Your task to perform on an android device: Open the calendar and show me this week's events? Image 0: 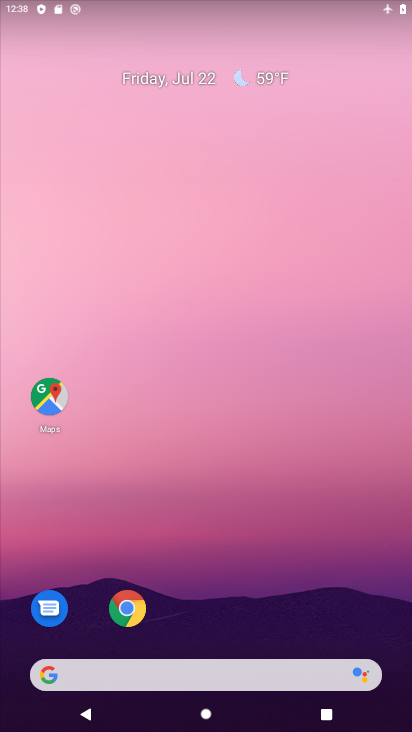
Step 0: drag from (188, 486) to (191, 156)
Your task to perform on an android device: Open the calendar and show me this week's events? Image 1: 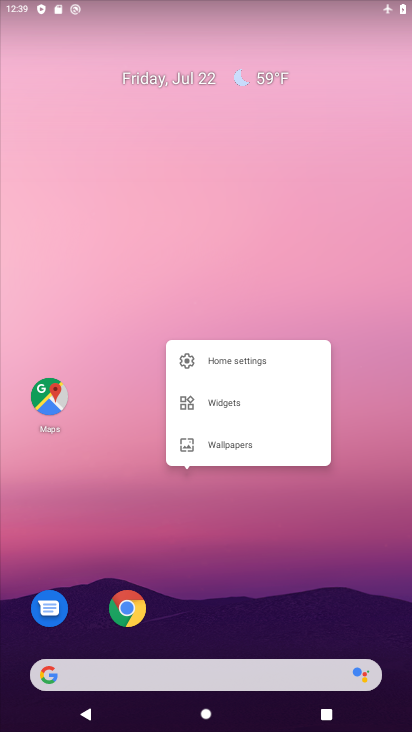
Step 1: drag from (169, 642) to (179, 175)
Your task to perform on an android device: Open the calendar and show me this week's events? Image 2: 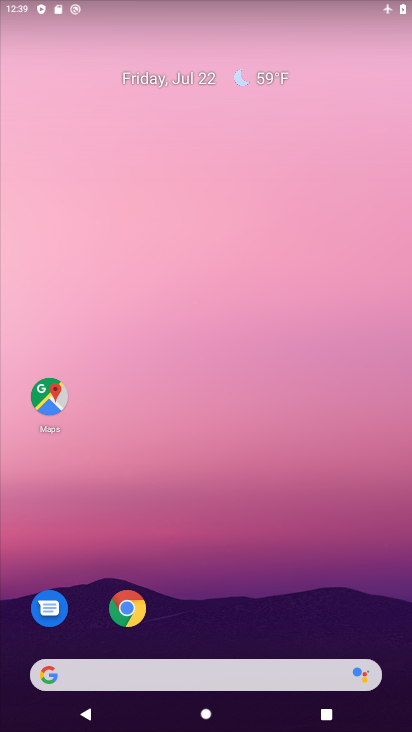
Step 2: drag from (189, 629) to (217, 36)
Your task to perform on an android device: Open the calendar and show me this week's events? Image 3: 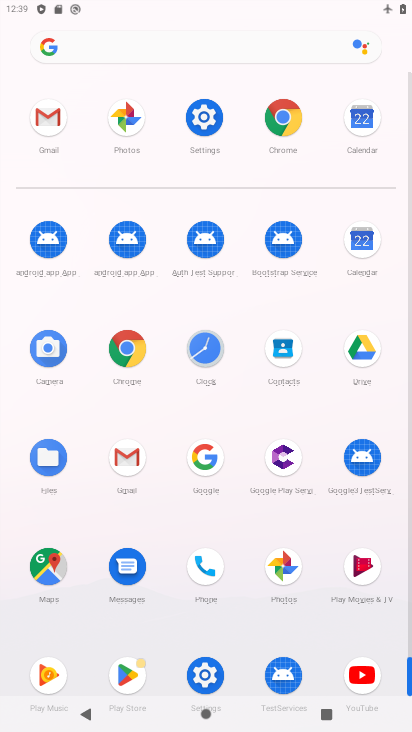
Step 3: click (365, 128)
Your task to perform on an android device: Open the calendar and show me this week's events? Image 4: 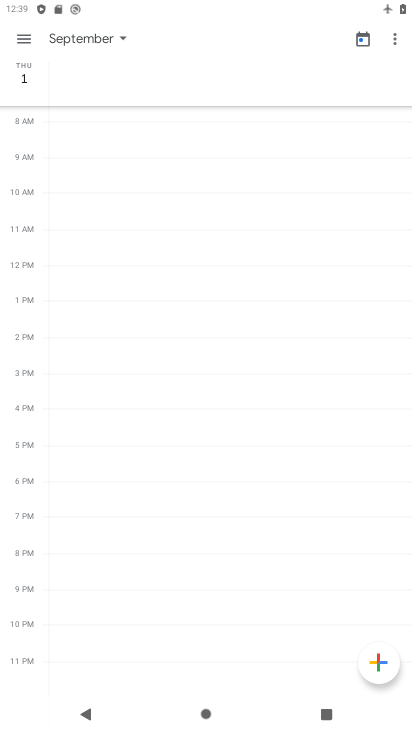
Step 4: click (80, 36)
Your task to perform on an android device: Open the calendar and show me this week's events? Image 5: 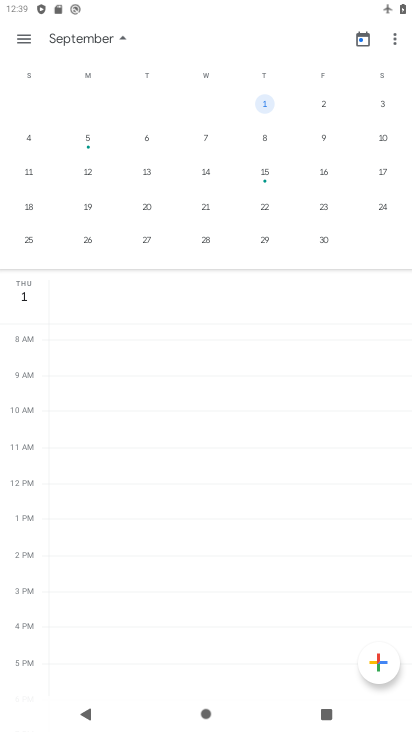
Step 5: drag from (77, 162) to (394, 219)
Your task to perform on an android device: Open the calendar and show me this week's events? Image 6: 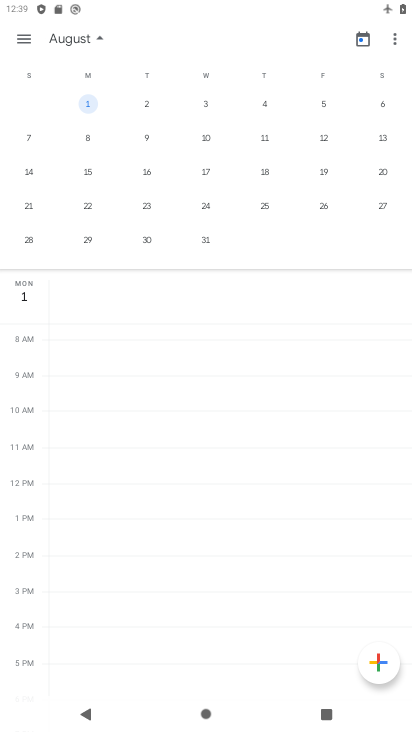
Step 6: drag from (116, 155) to (404, 191)
Your task to perform on an android device: Open the calendar and show me this week's events? Image 7: 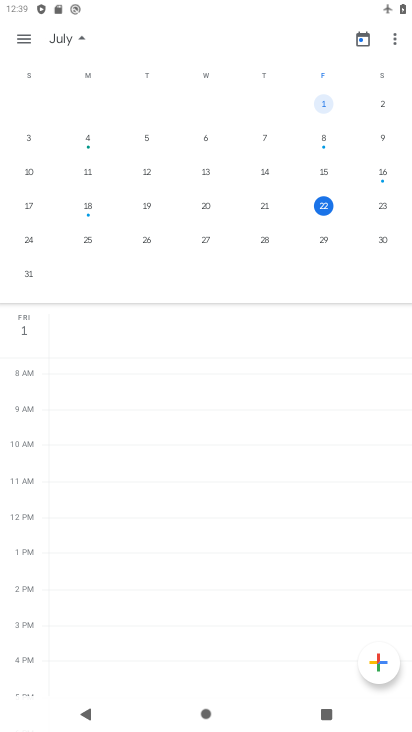
Step 7: click (328, 209)
Your task to perform on an android device: Open the calendar and show me this week's events? Image 8: 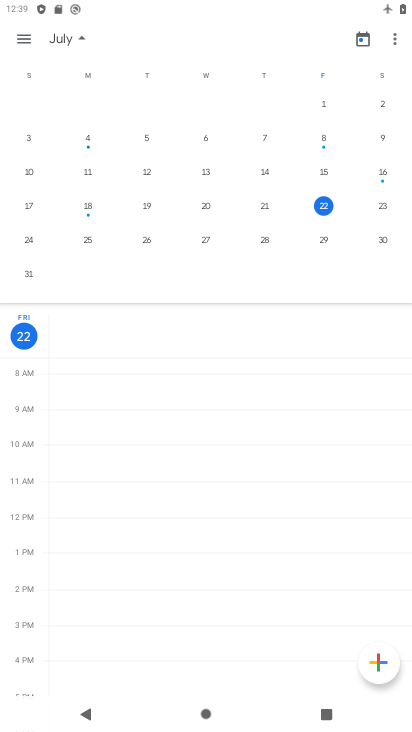
Step 8: click (12, 33)
Your task to perform on an android device: Open the calendar and show me this week's events? Image 9: 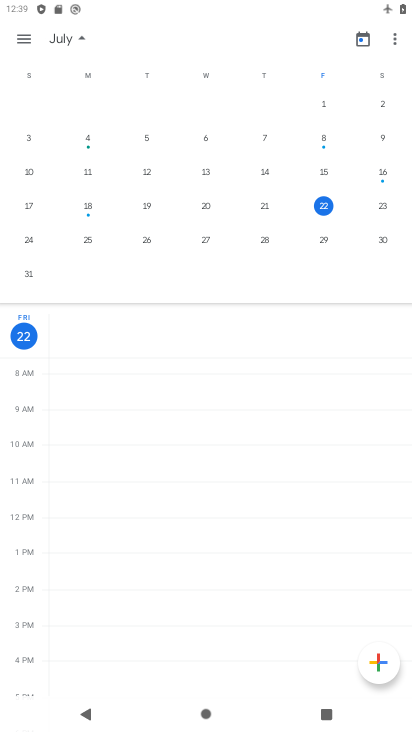
Step 9: click (20, 33)
Your task to perform on an android device: Open the calendar and show me this week's events? Image 10: 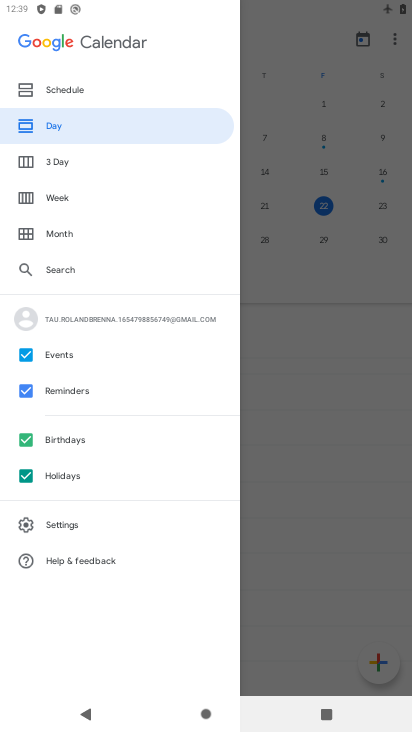
Step 10: click (51, 385)
Your task to perform on an android device: Open the calendar and show me this week's events? Image 11: 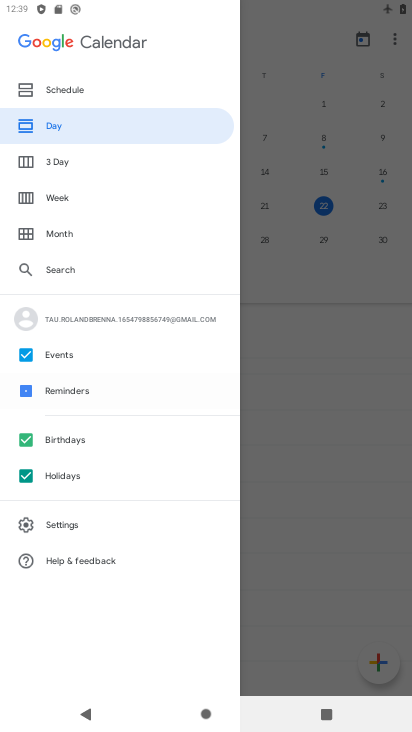
Step 11: click (58, 443)
Your task to perform on an android device: Open the calendar and show me this week's events? Image 12: 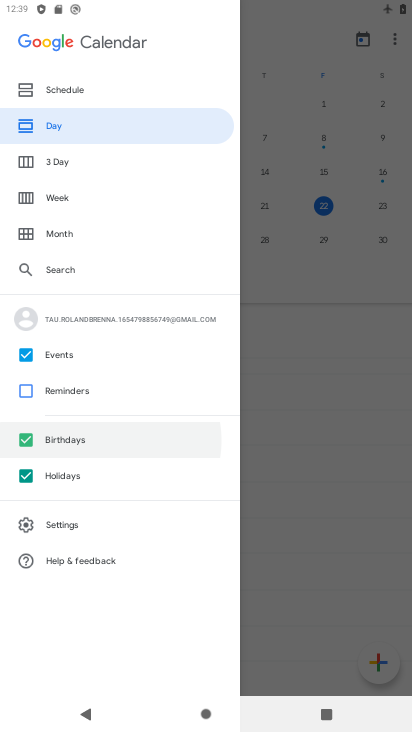
Step 12: click (53, 480)
Your task to perform on an android device: Open the calendar and show me this week's events? Image 13: 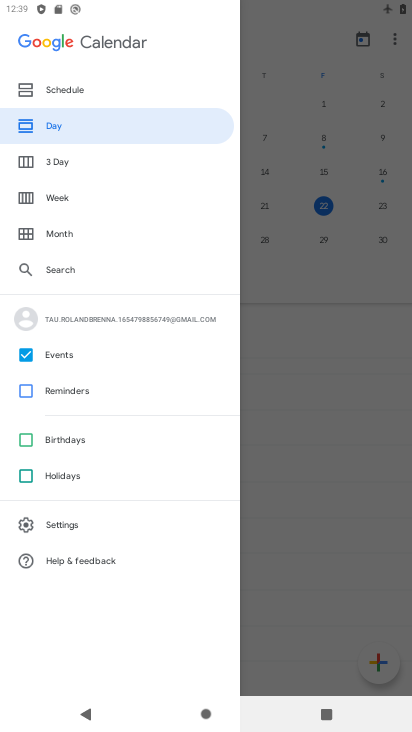
Step 13: click (65, 197)
Your task to perform on an android device: Open the calendar and show me this week's events? Image 14: 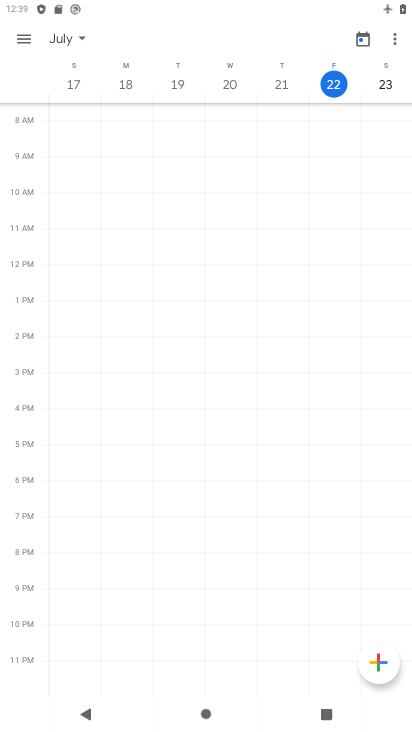
Step 14: task complete